Your task to perform on an android device: Open Chrome and go to settings Image 0: 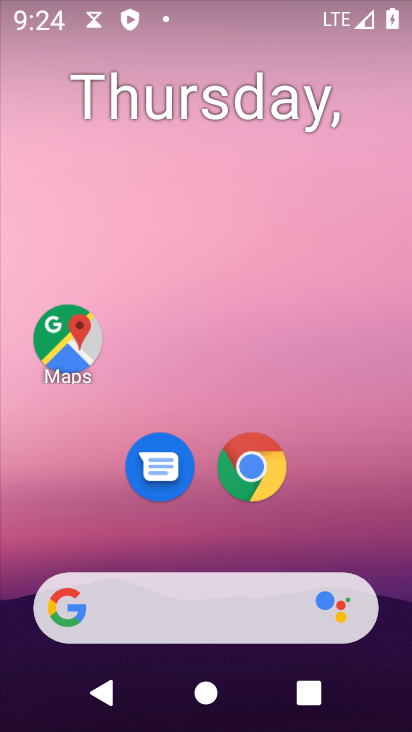
Step 0: click (250, 443)
Your task to perform on an android device: Open Chrome and go to settings Image 1: 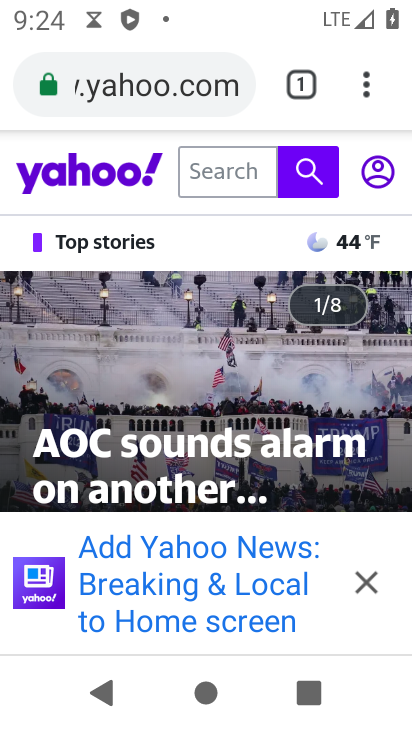
Step 1: click (361, 84)
Your task to perform on an android device: Open Chrome and go to settings Image 2: 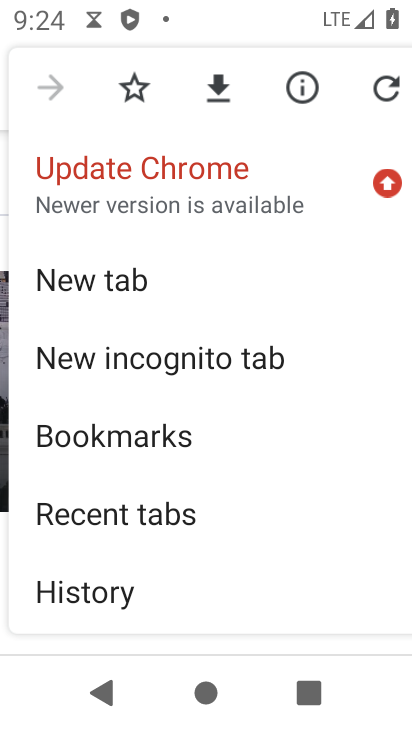
Step 2: drag from (166, 566) to (163, 398)
Your task to perform on an android device: Open Chrome and go to settings Image 3: 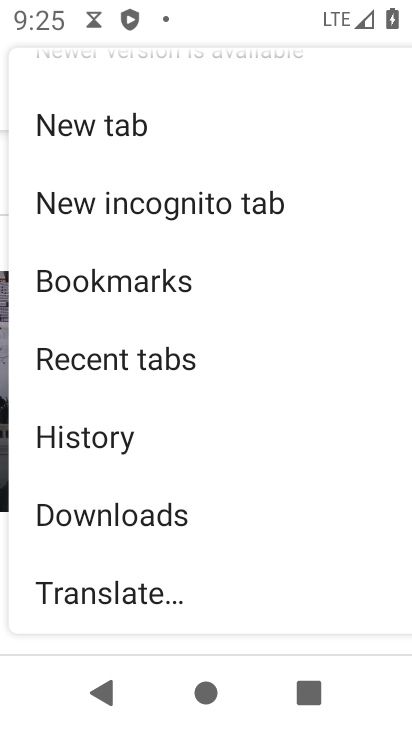
Step 3: drag from (164, 572) to (158, 435)
Your task to perform on an android device: Open Chrome and go to settings Image 4: 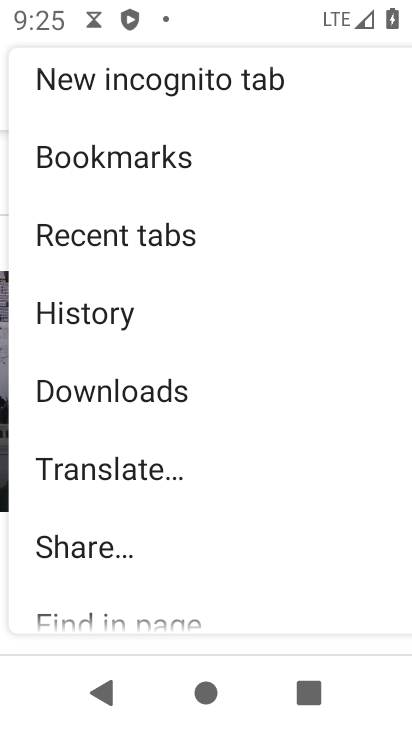
Step 4: drag from (161, 545) to (169, 426)
Your task to perform on an android device: Open Chrome and go to settings Image 5: 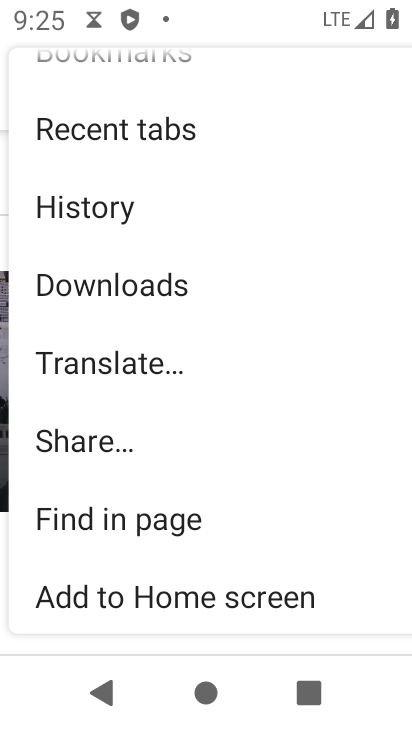
Step 5: drag from (177, 532) to (173, 454)
Your task to perform on an android device: Open Chrome and go to settings Image 6: 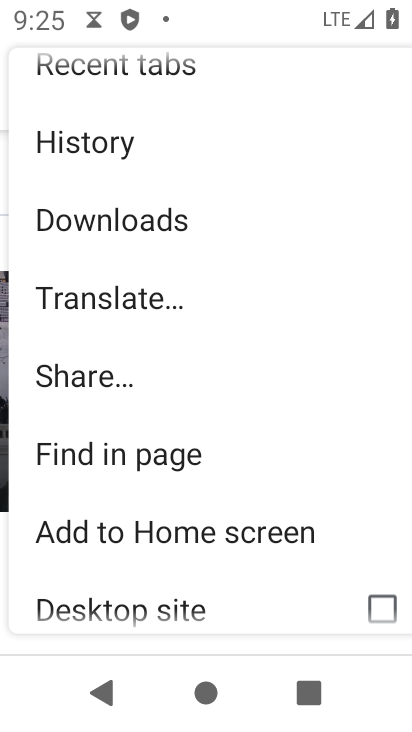
Step 6: drag from (163, 505) to (163, 440)
Your task to perform on an android device: Open Chrome and go to settings Image 7: 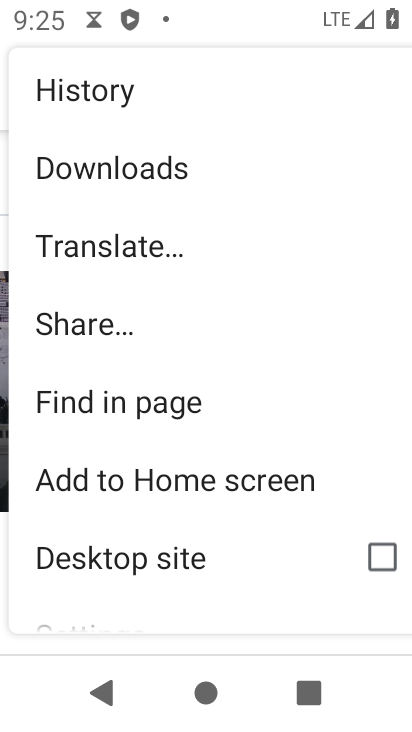
Step 7: drag from (167, 511) to (172, 437)
Your task to perform on an android device: Open Chrome and go to settings Image 8: 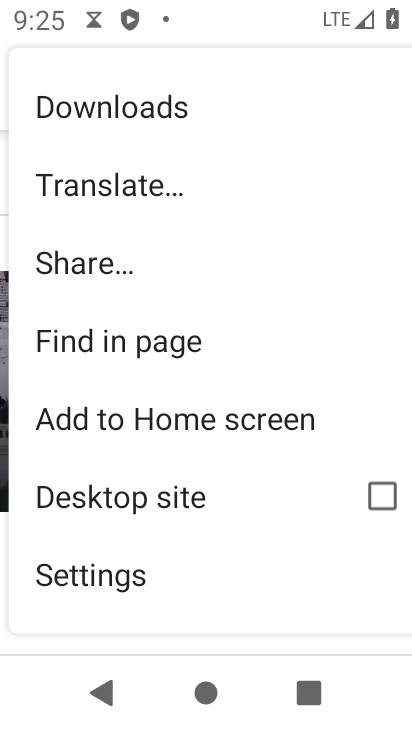
Step 8: click (110, 581)
Your task to perform on an android device: Open Chrome and go to settings Image 9: 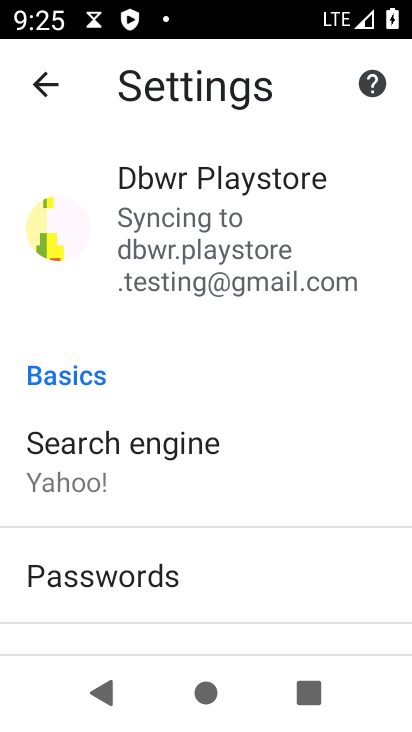
Step 9: task complete